Your task to perform on an android device: Open sound settings Image 0: 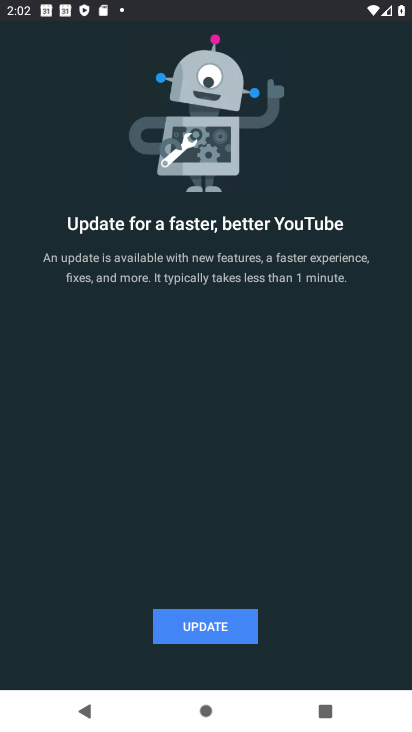
Step 0: press home button
Your task to perform on an android device: Open sound settings Image 1: 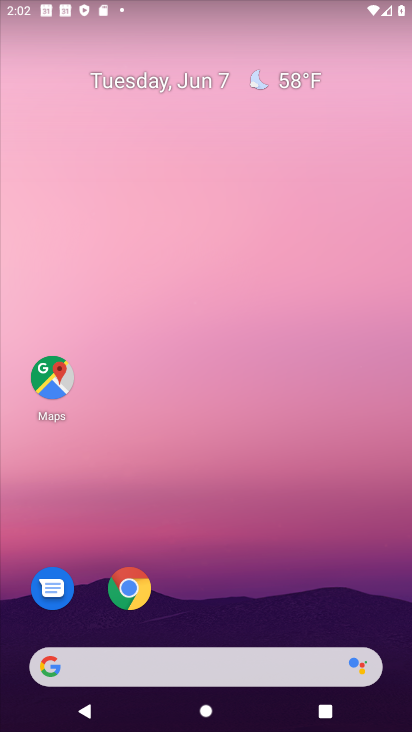
Step 1: drag from (292, 610) to (201, 54)
Your task to perform on an android device: Open sound settings Image 2: 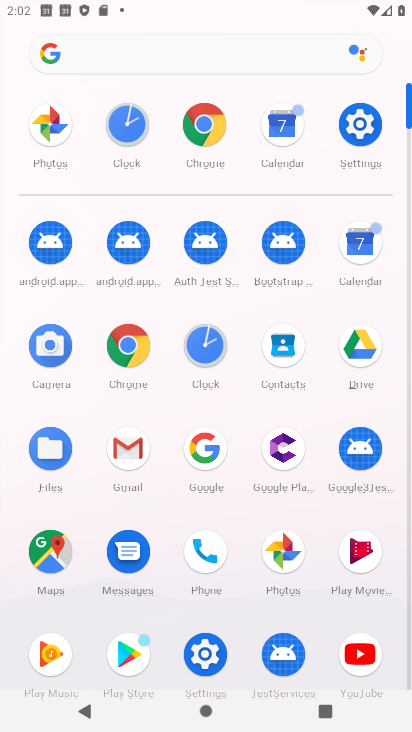
Step 2: click (355, 119)
Your task to perform on an android device: Open sound settings Image 3: 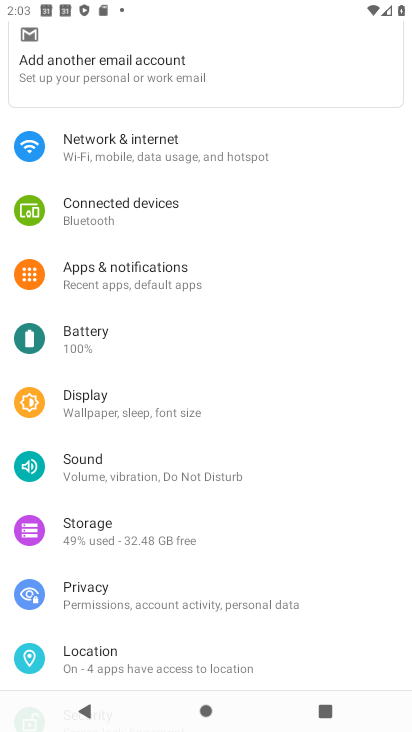
Step 3: click (166, 454)
Your task to perform on an android device: Open sound settings Image 4: 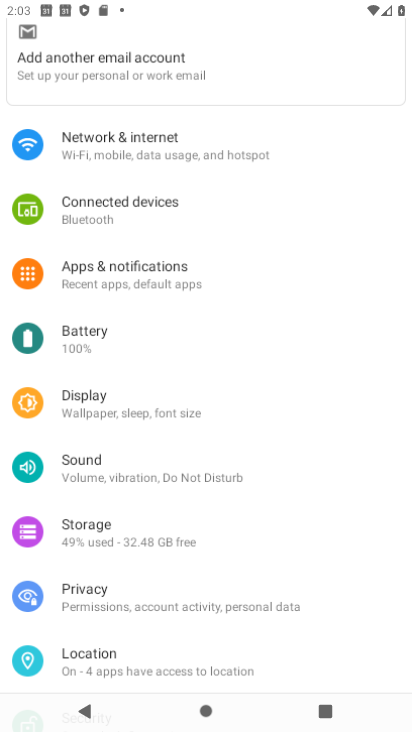
Step 4: task complete